Your task to perform on an android device: add a contact in the contacts app Image 0: 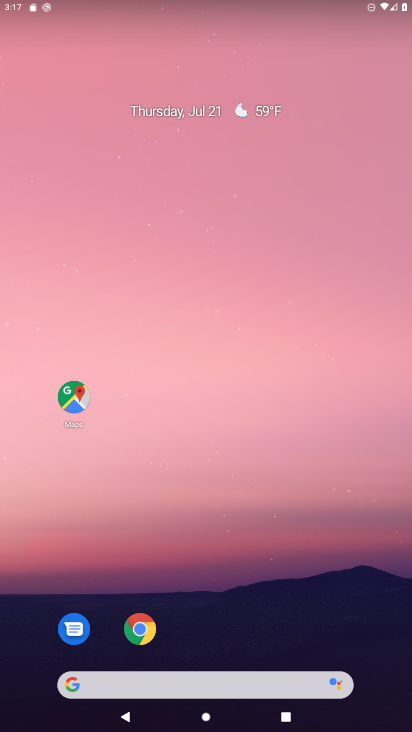
Step 0: drag from (230, 699) to (225, 81)
Your task to perform on an android device: add a contact in the contacts app Image 1: 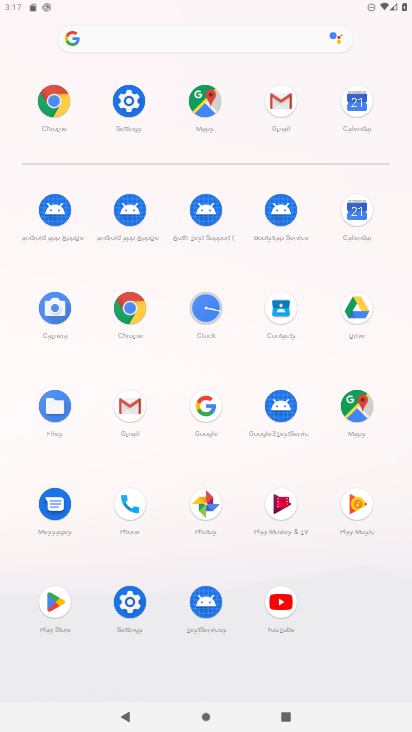
Step 1: click (282, 307)
Your task to perform on an android device: add a contact in the contacts app Image 2: 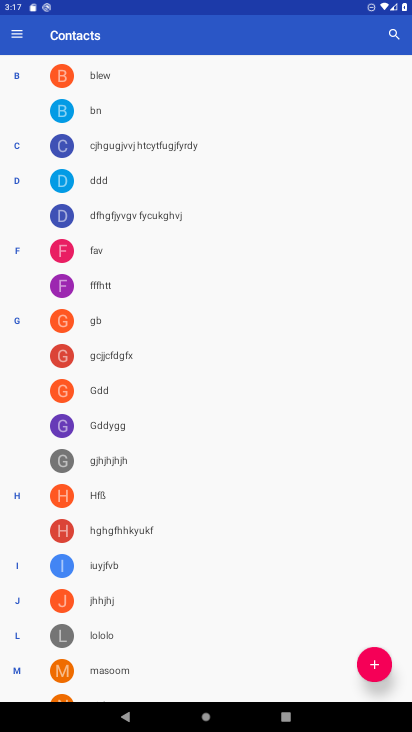
Step 2: click (372, 667)
Your task to perform on an android device: add a contact in the contacts app Image 3: 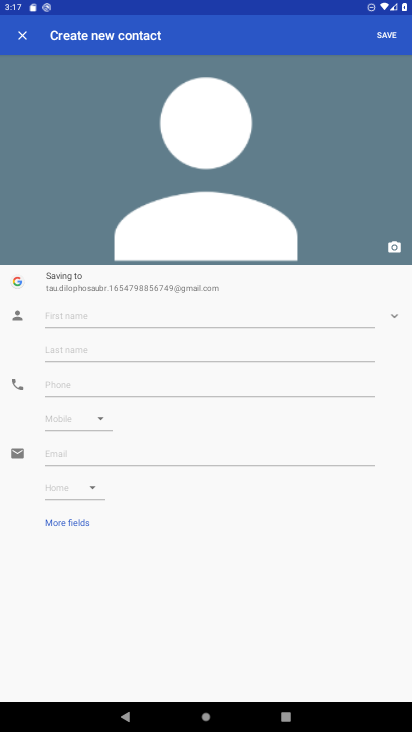
Step 3: click (157, 318)
Your task to perform on an android device: add a contact in the contacts app Image 4: 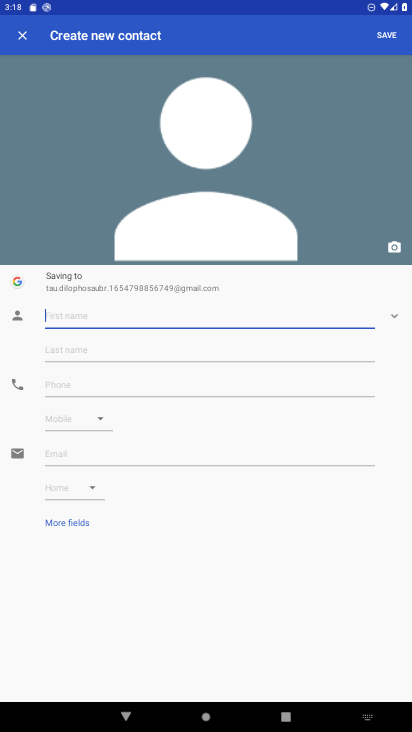
Step 4: type "ashotthama"
Your task to perform on an android device: add a contact in the contacts app Image 5: 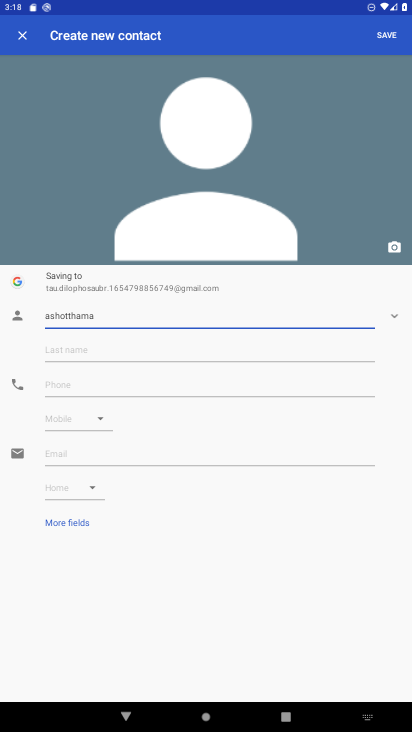
Step 5: click (60, 390)
Your task to perform on an android device: add a contact in the contacts app Image 6: 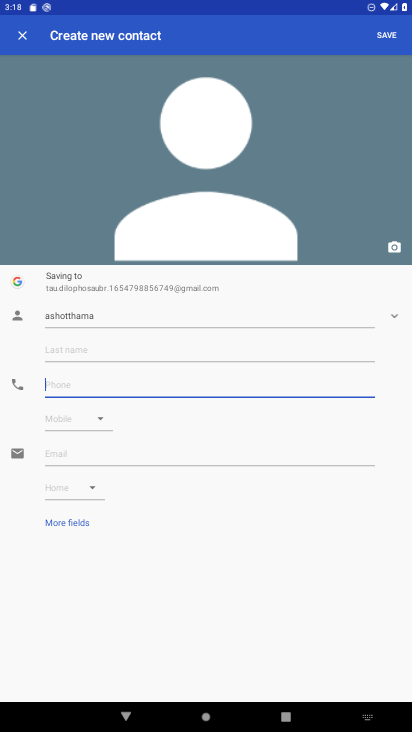
Step 6: type "0909090"
Your task to perform on an android device: add a contact in the contacts app Image 7: 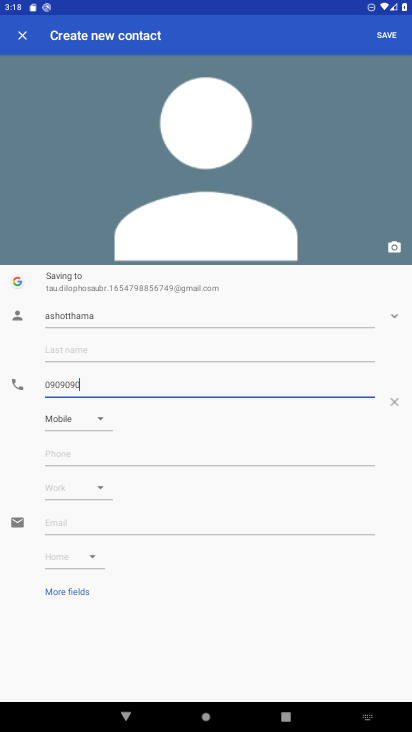
Step 7: click (386, 36)
Your task to perform on an android device: add a contact in the contacts app Image 8: 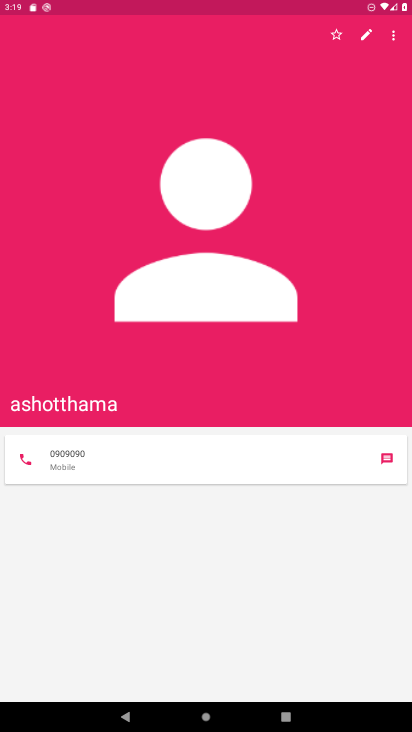
Step 8: task complete